Your task to perform on an android device: What's on my calendar tomorrow? Image 0: 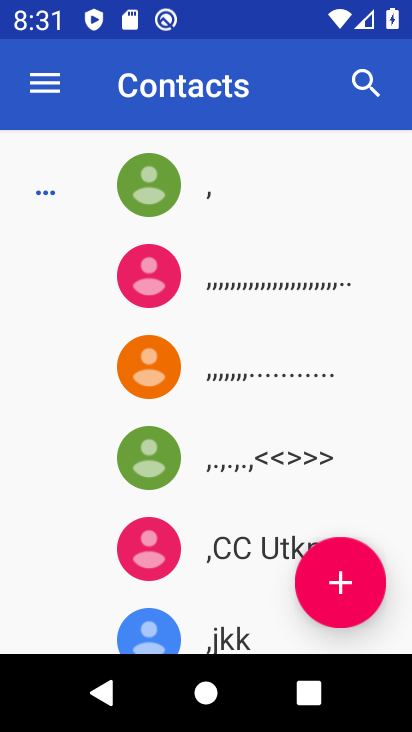
Step 0: press home button
Your task to perform on an android device: What's on my calendar tomorrow? Image 1: 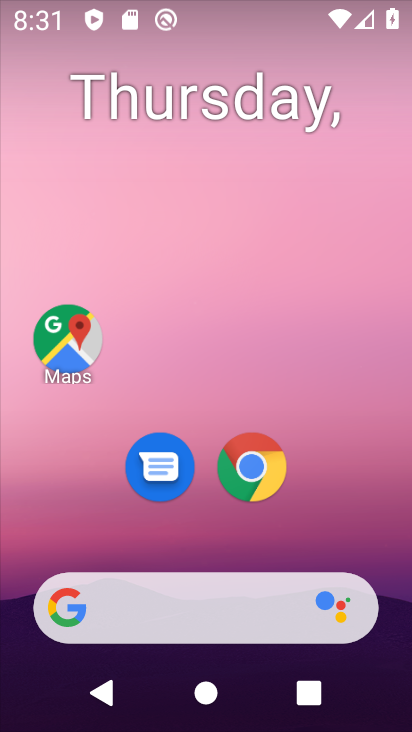
Step 1: drag from (321, 553) to (353, 51)
Your task to perform on an android device: What's on my calendar tomorrow? Image 2: 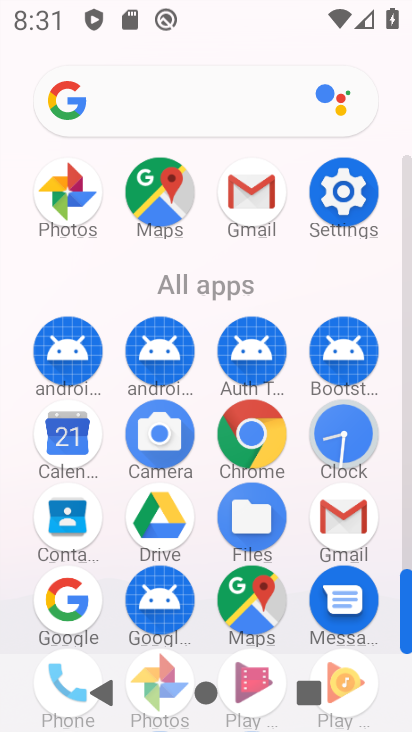
Step 2: click (52, 443)
Your task to perform on an android device: What's on my calendar tomorrow? Image 3: 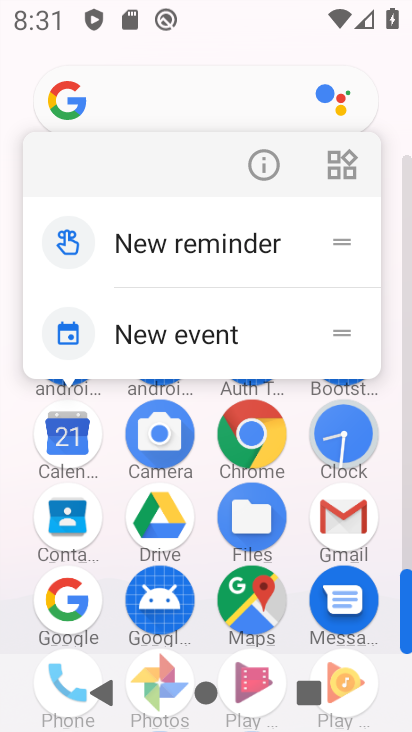
Step 3: click (53, 442)
Your task to perform on an android device: What's on my calendar tomorrow? Image 4: 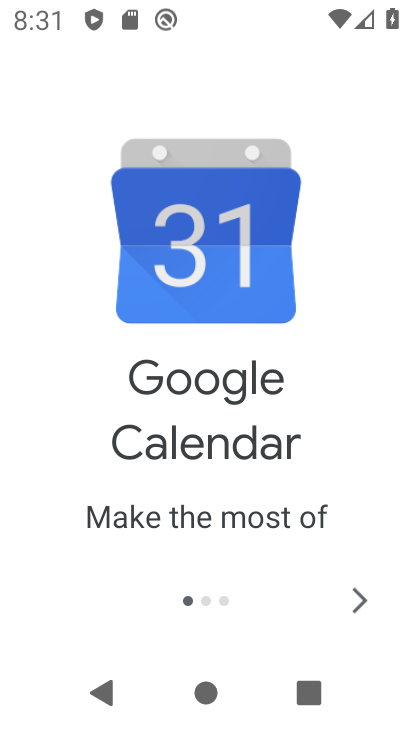
Step 4: click (357, 583)
Your task to perform on an android device: What's on my calendar tomorrow? Image 5: 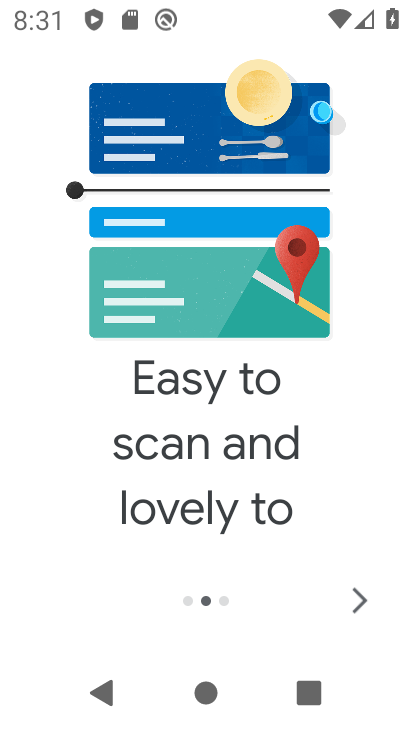
Step 5: click (358, 583)
Your task to perform on an android device: What's on my calendar tomorrow? Image 6: 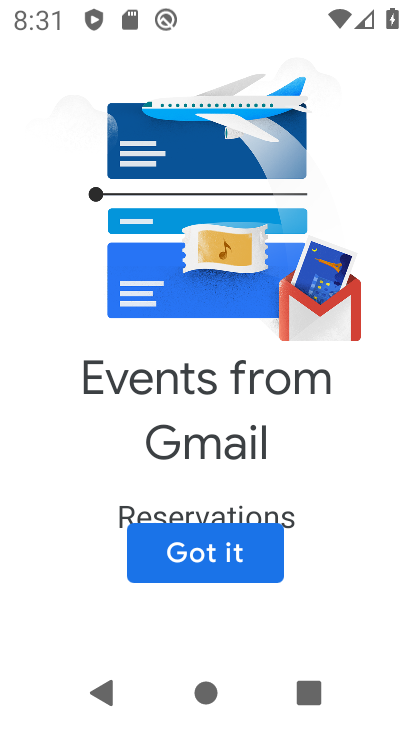
Step 6: click (250, 563)
Your task to perform on an android device: What's on my calendar tomorrow? Image 7: 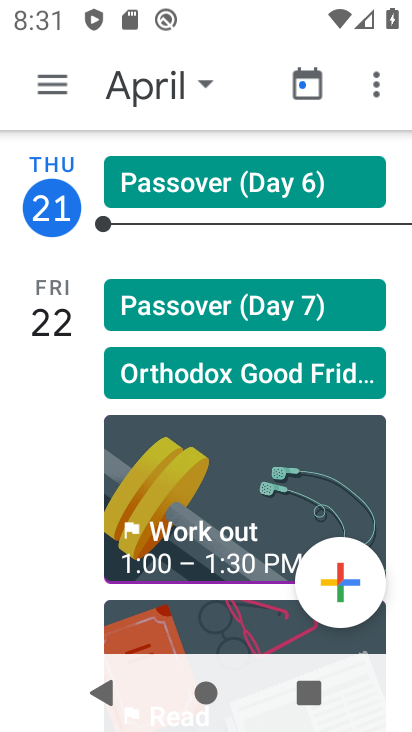
Step 7: click (155, 95)
Your task to perform on an android device: What's on my calendar tomorrow? Image 8: 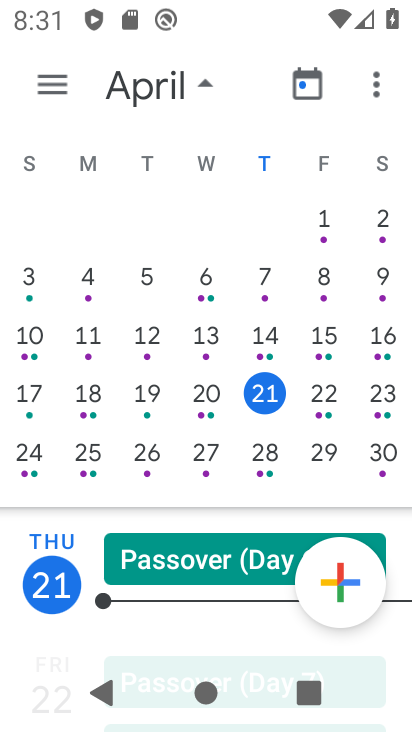
Step 8: click (328, 407)
Your task to perform on an android device: What's on my calendar tomorrow? Image 9: 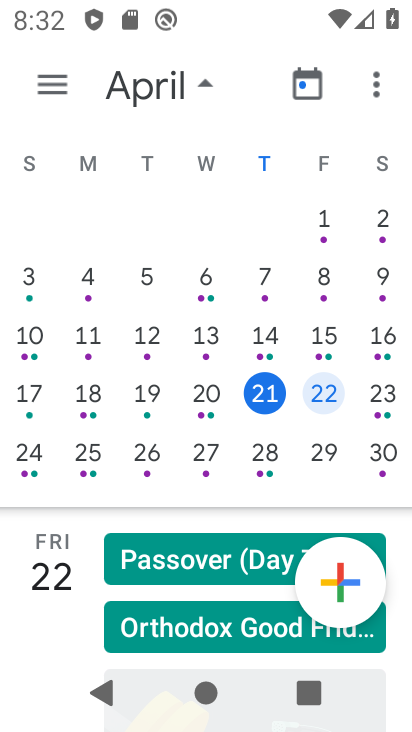
Step 9: task complete